Your task to perform on an android device: Go to wifi settings Image 0: 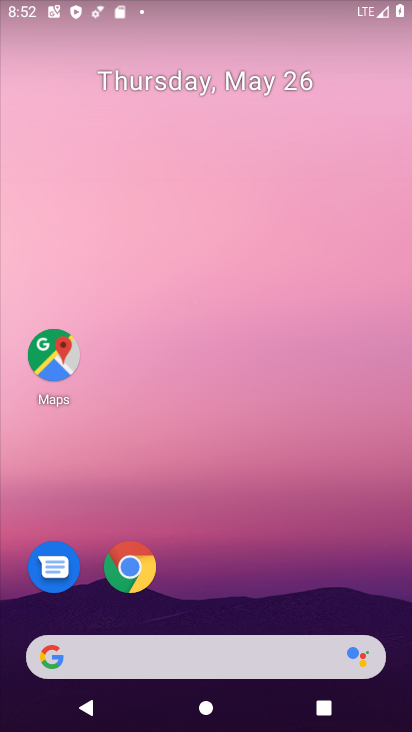
Step 0: drag from (242, 700) to (138, 0)
Your task to perform on an android device: Go to wifi settings Image 1: 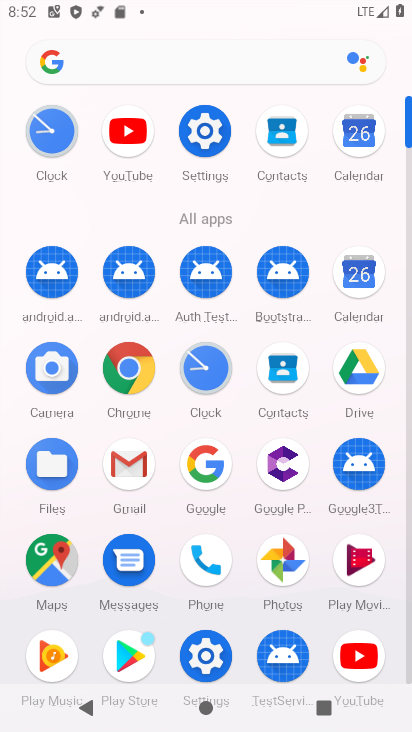
Step 1: click (207, 156)
Your task to perform on an android device: Go to wifi settings Image 2: 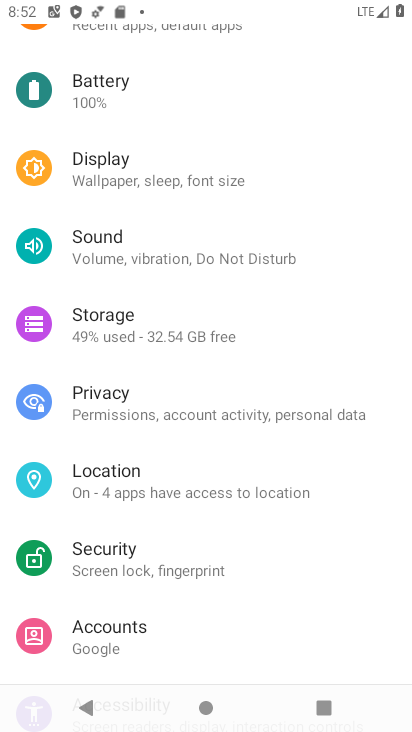
Step 2: drag from (236, 115) to (213, 615)
Your task to perform on an android device: Go to wifi settings Image 3: 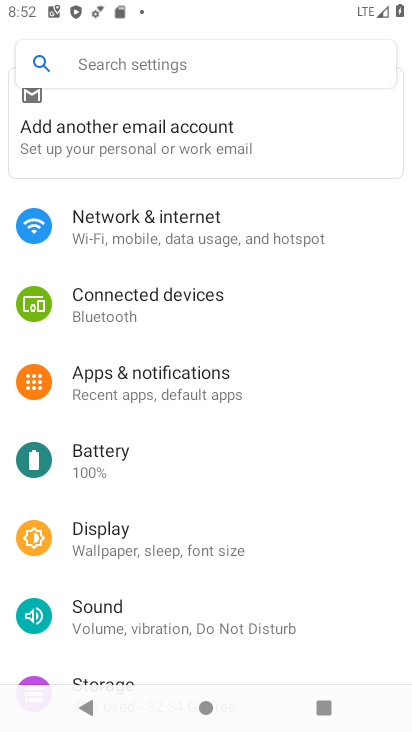
Step 3: click (214, 238)
Your task to perform on an android device: Go to wifi settings Image 4: 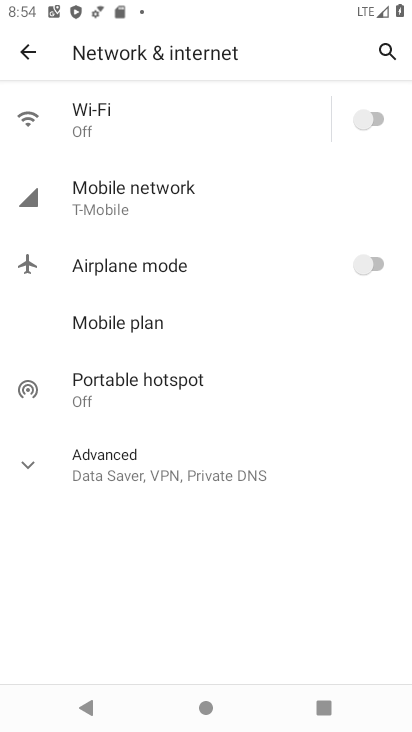
Step 4: click (181, 116)
Your task to perform on an android device: Go to wifi settings Image 5: 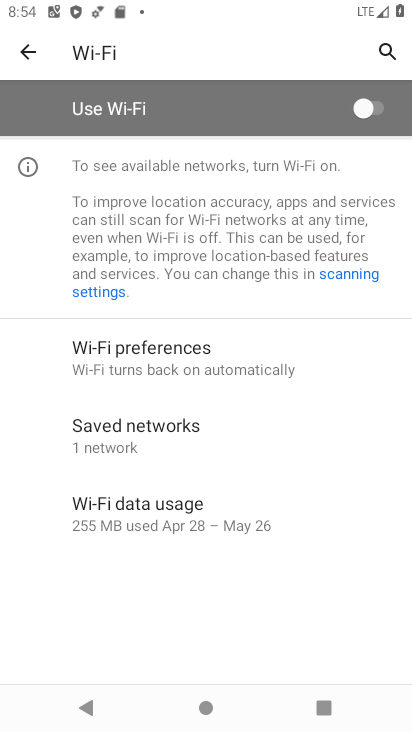
Step 5: task complete